Your task to perform on an android device: Open Android settings Image 0: 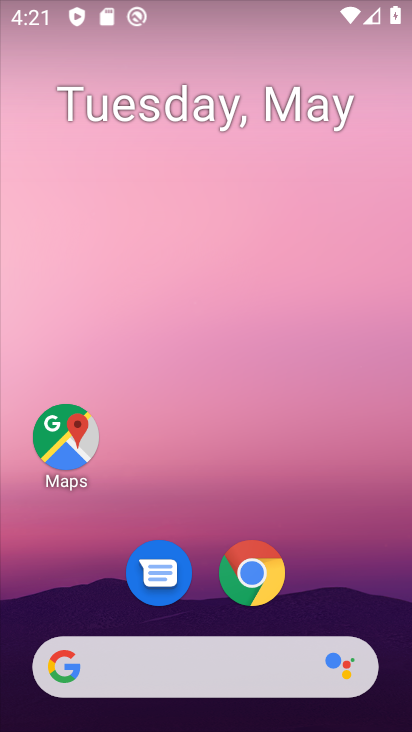
Step 0: drag from (353, 564) to (313, 7)
Your task to perform on an android device: Open Android settings Image 1: 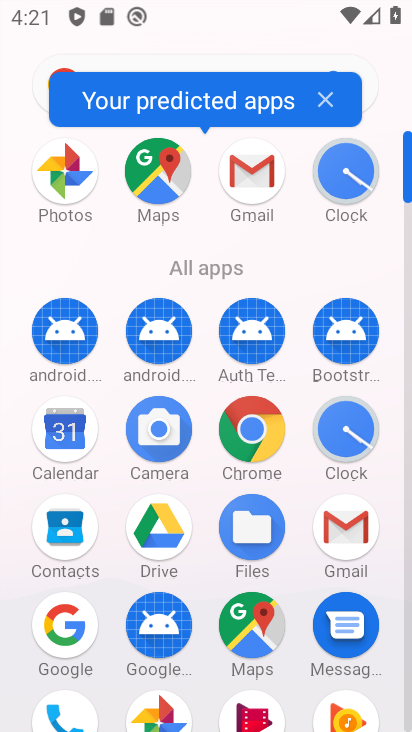
Step 1: click (404, 644)
Your task to perform on an android device: Open Android settings Image 2: 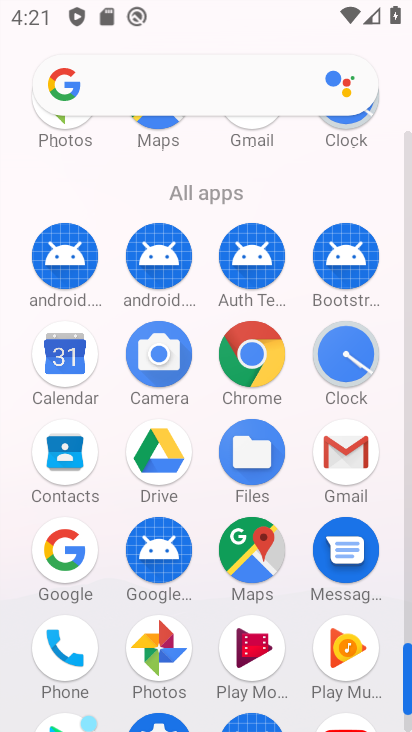
Step 2: drag from (401, 628) to (388, 379)
Your task to perform on an android device: Open Android settings Image 3: 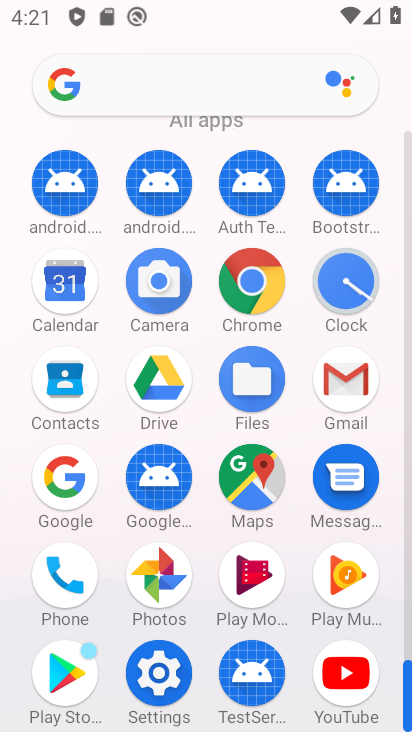
Step 3: click (157, 669)
Your task to perform on an android device: Open Android settings Image 4: 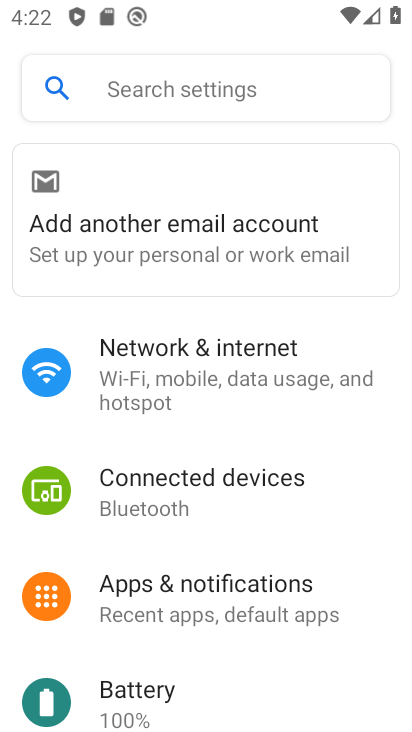
Step 4: task complete